Your task to perform on an android device: Open Google Chrome and click the shortcut for Amazon.com Image 0: 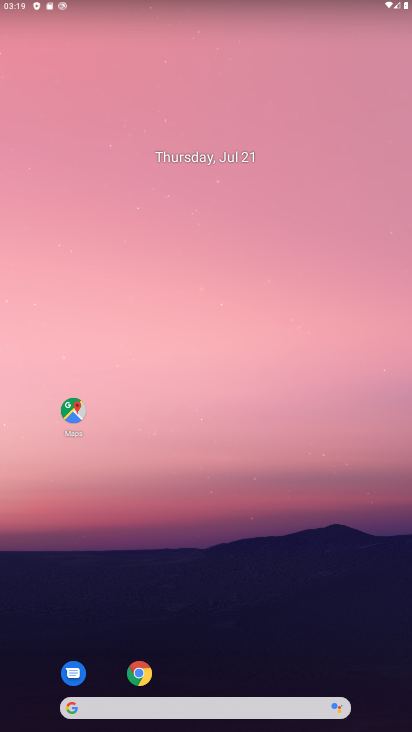
Step 0: drag from (332, 559) to (172, 69)
Your task to perform on an android device: Open Google Chrome and click the shortcut for Amazon.com Image 1: 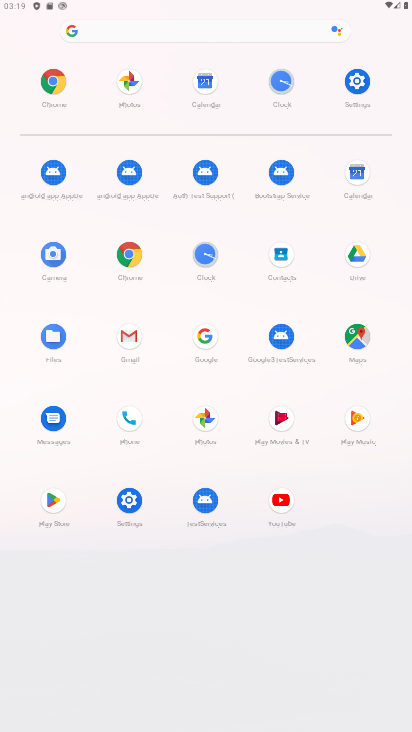
Step 1: click (138, 255)
Your task to perform on an android device: Open Google Chrome and click the shortcut for Amazon.com Image 2: 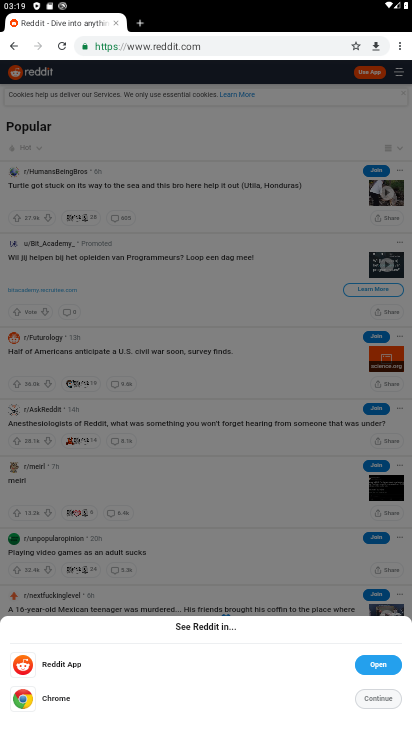
Step 2: click (144, 28)
Your task to perform on an android device: Open Google Chrome and click the shortcut for Amazon.com Image 3: 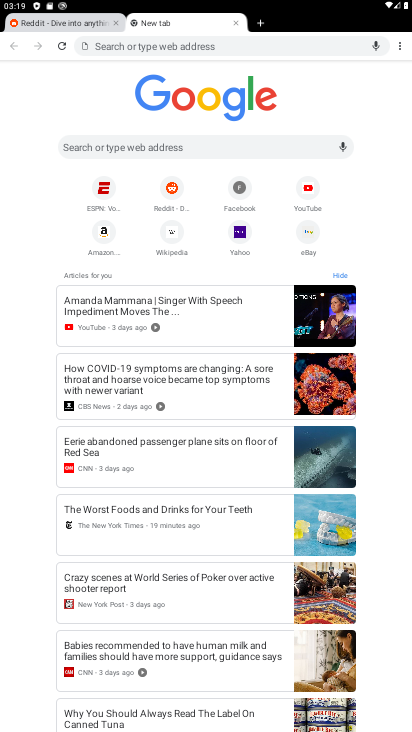
Step 3: click (102, 240)
Your task to perform on an android device: Open Google Chrome and click the shortcut for Amazon.com Image 4: 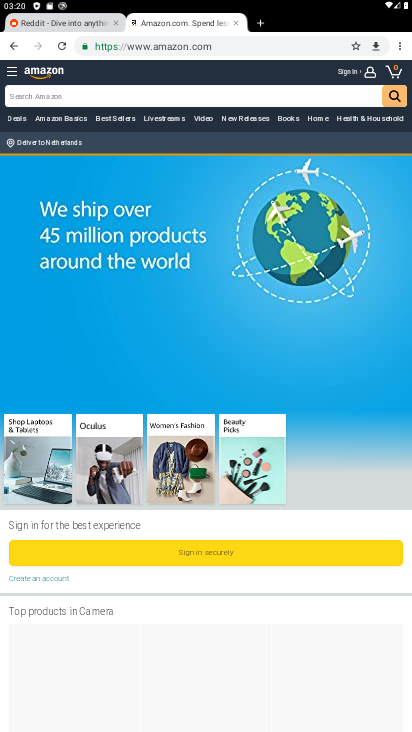
Step 4: task complete